Your task to perform on an android device: Open notification settings Image 0: 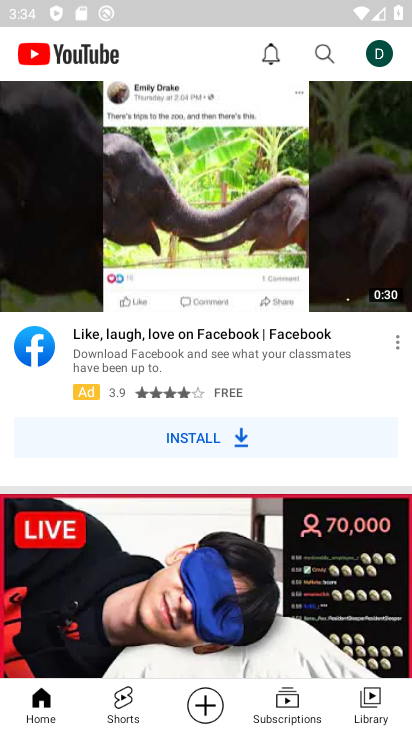
Step 0: press home button
Your task to perform on an android device: Open notification settings Image 1: 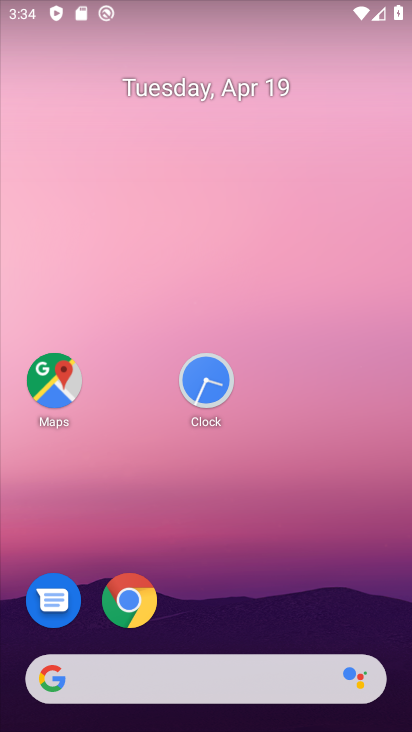
Step 1: drag from (356, 622) to (201, 230)
Your task to perform on an android device: Open notification settings Image 2: 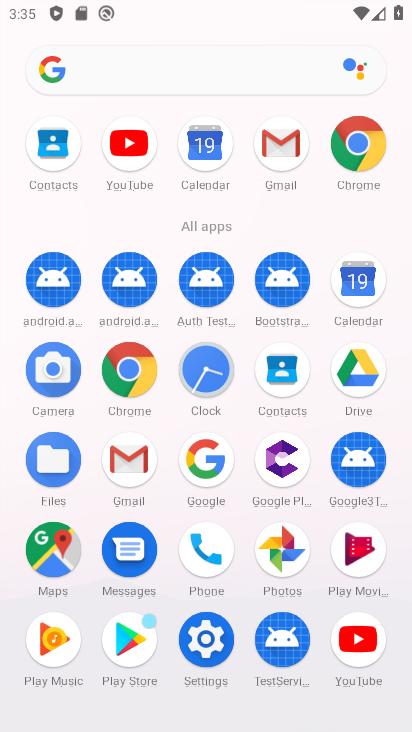
Step 2: click (352, 150)
Your task to perform on an android device: Open notification settings Image 3: 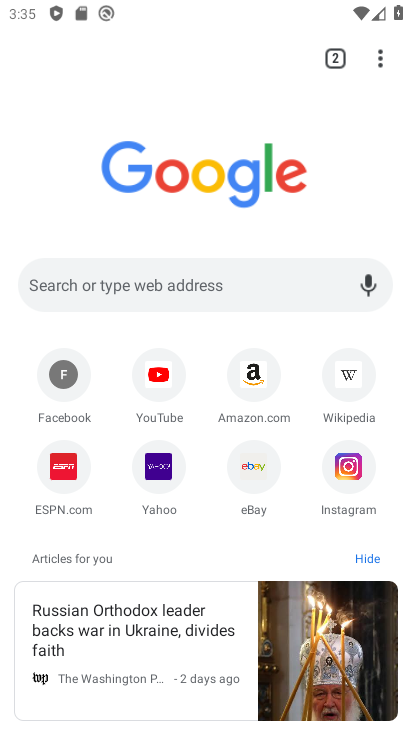
Step 3: press back button
Your task to perform on an android device: Open notification settings Image 4: 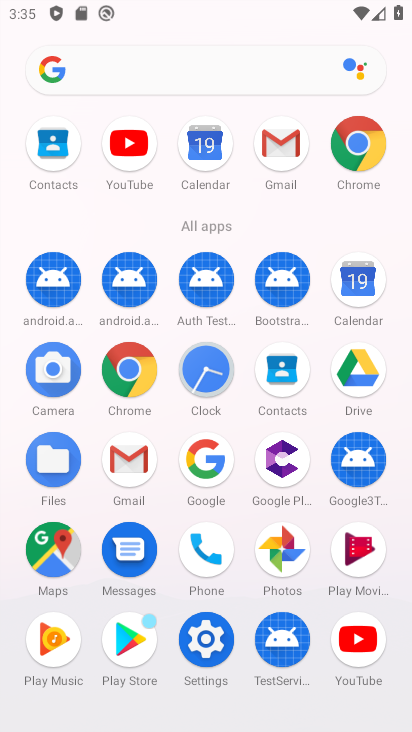
Step 4: click (195, 651)
Your task to perform on an android device: Open notification settings Image 5: 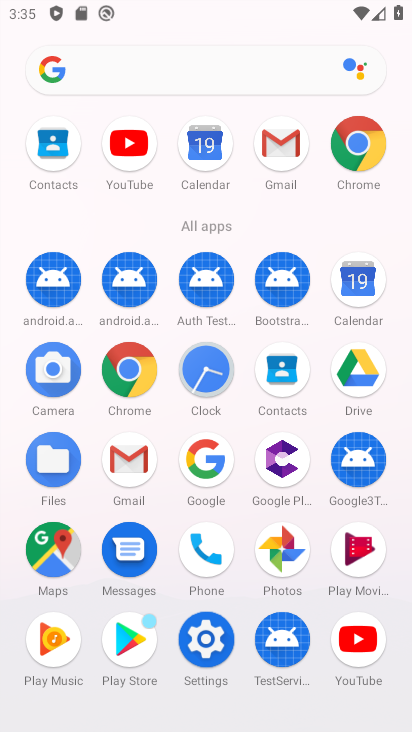
Step 5: click (195, 651)
Your task to perform on an android device: Open notification settings Image 6: 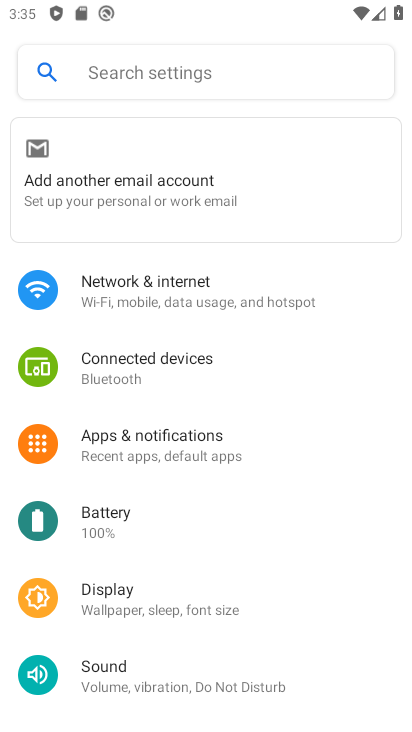
Step 6: click (152, 438)
Your task to perform on an android device: Open notification settings Image 7: 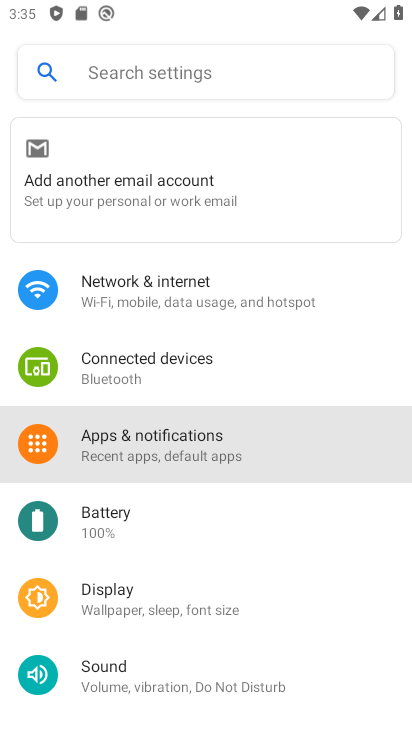
Step 7: click (152, 438)
Your task to perform on an android device: Open notification settings Image 8: 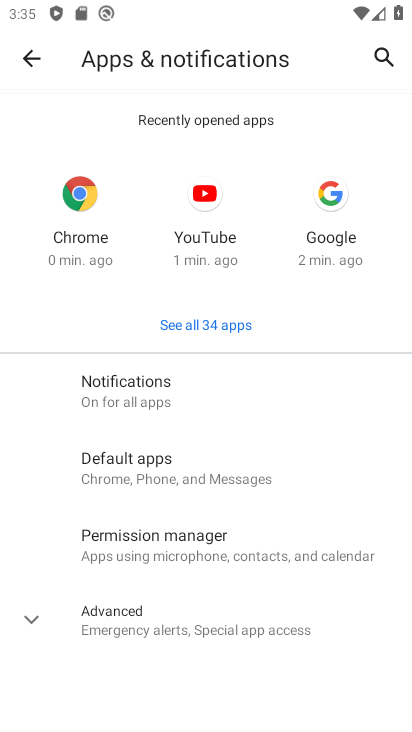
Step 8: click (133, 403)
Your task to perform on an android device: Open notification settings Image 9: 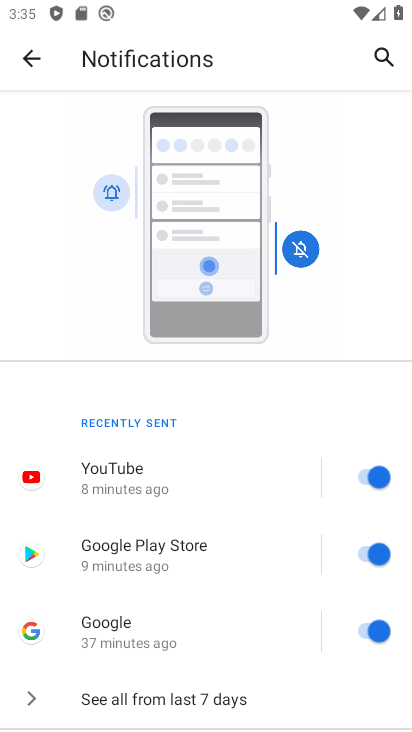
Step 9: task complete